Your task to perform on an android device: turn pop-ups on in chrome Image 0: 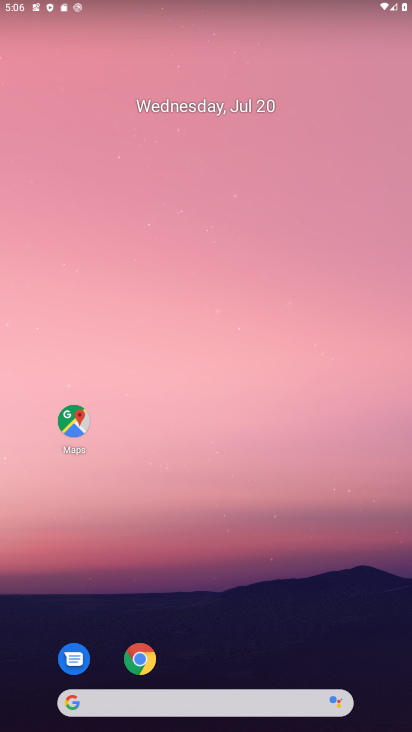
Step 0: click (143, 659)
Your task to perform on an android device: turn pop-ups on in chrome Image 1: 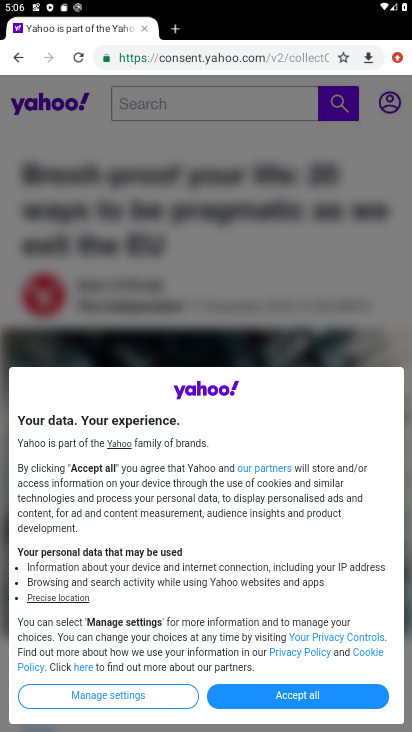
Step 1: click (396, 57)
Your task to perform on an android device: turn pop-ups on in chrome Image 2: 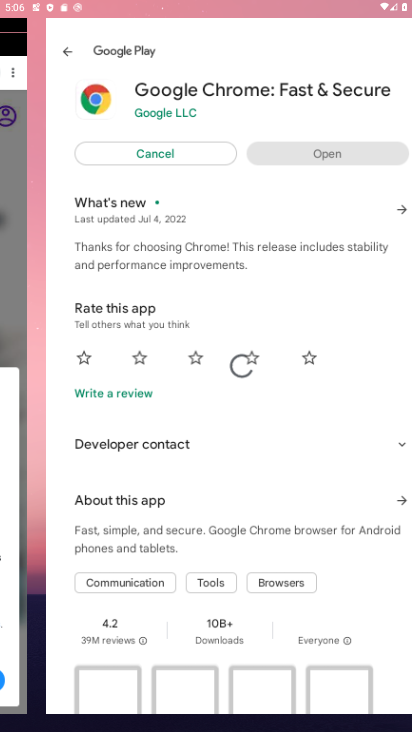
Step 2: click (396, 57)
Your task to perform on an android device: turn pop-ups on in chrome Image 3: 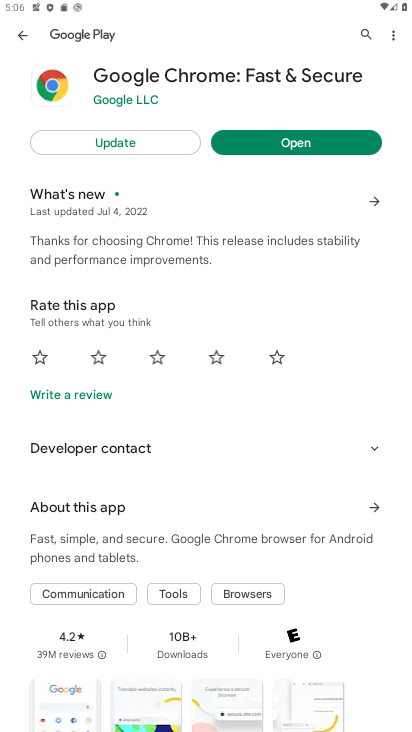
Step 3: click (301, 138)
Your task to perform on an android device: turn pop-ups on in chrome Image 4: 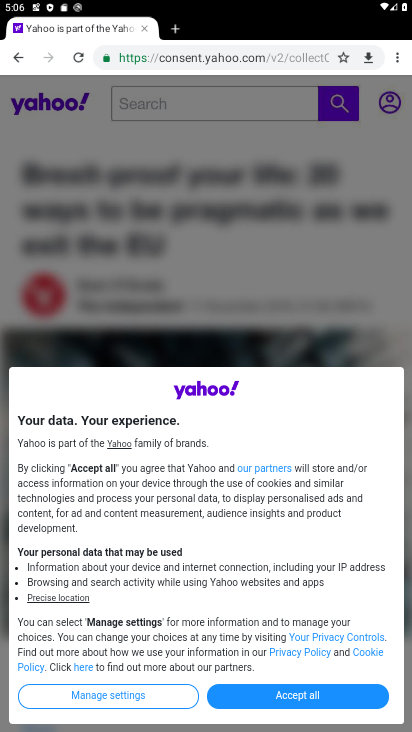
Step 4: click (393, 60)
Your task to perform on an android device: turn pop-ups on in chrome Image 5: 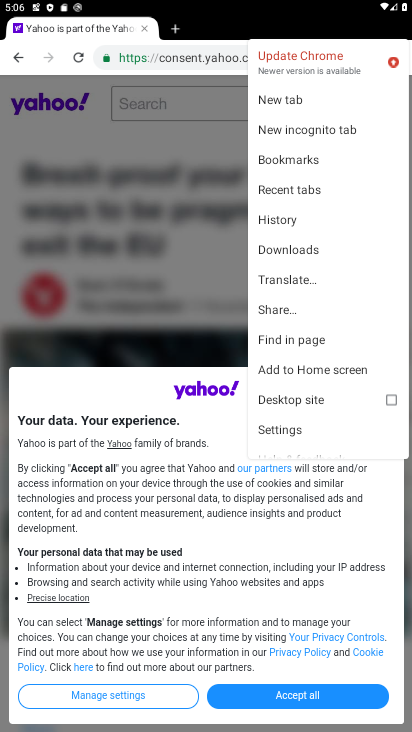
Step 5: click (287, 433)
Your task to perform on an android device: turn pop-ups on in chrome Image 6: 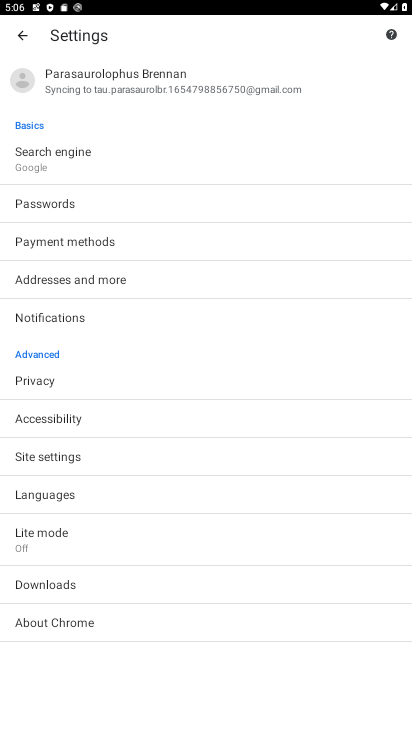
Step 6: click (63, 461)
Your task to perform on an android device: turn pop-ups on in chrome Image 7: 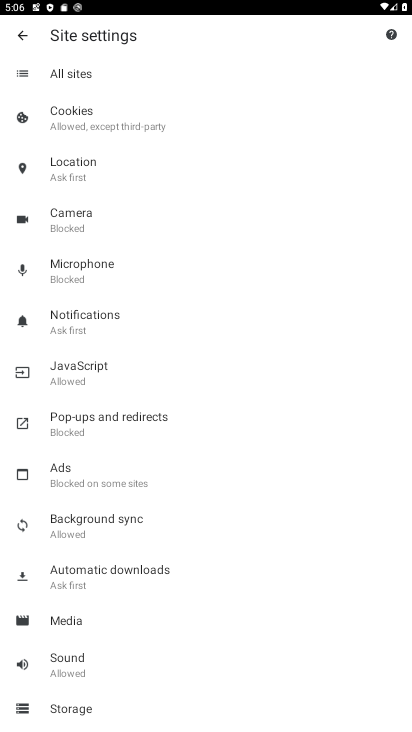
Step 7: click (88, 429)
Your task to perform on an android device: turn pop-ups on in chrome Image 8: 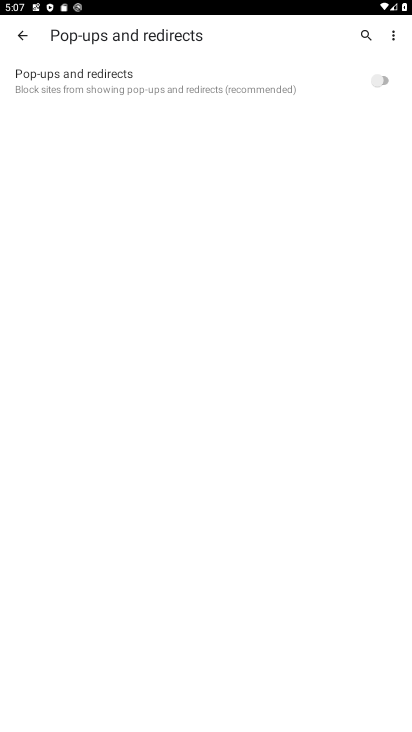
Step 8: click (379, 82)
Your task to perform on an android device: turn pop-ups on in chrome Image 9: 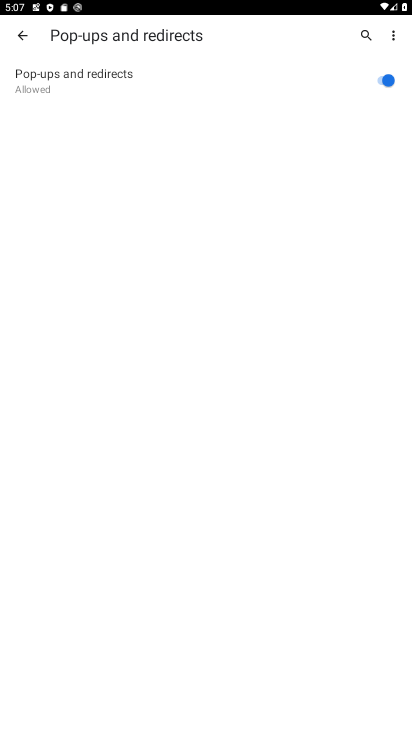
Step 9: task complete